Your task to perform on an android device: add a label to a message in the gmail app Image 0: 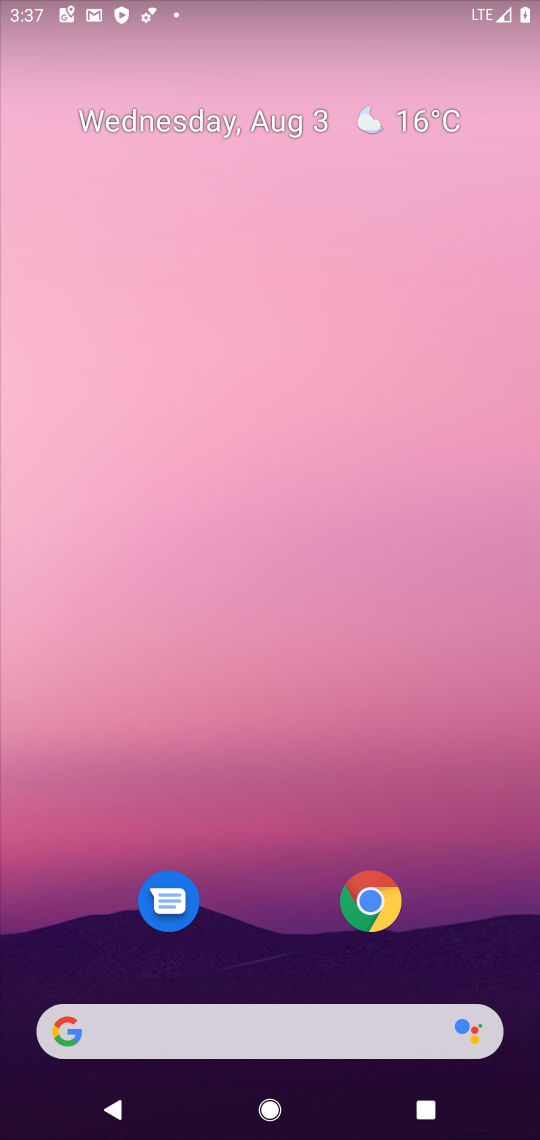
Step 0: drag from (282, 350) to (282, 281)
Your task to perform on an android device: add a label to a message in the gmail app Image 1: 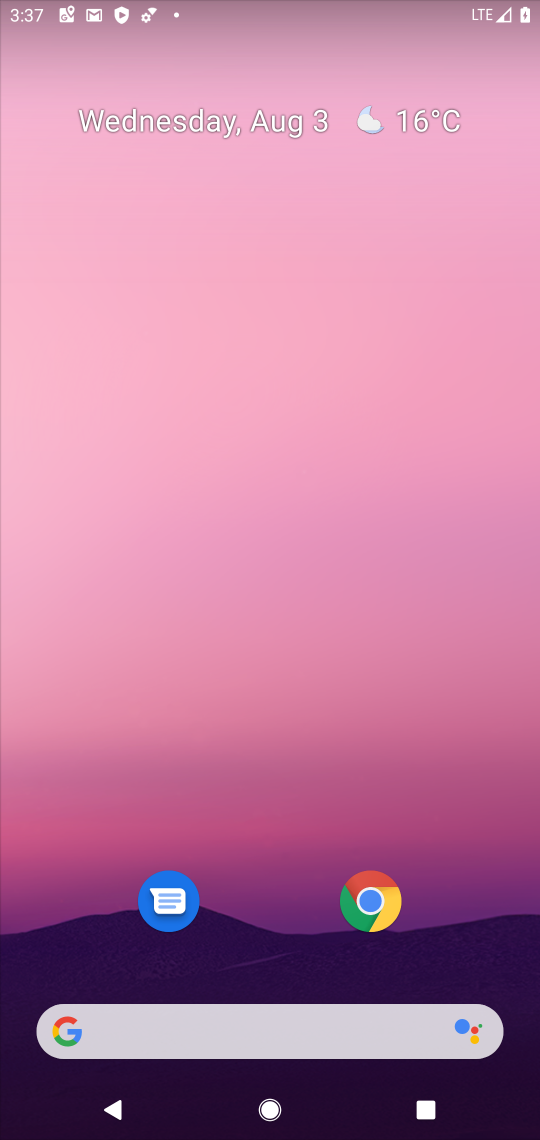
Step 1: drag from (233, 963) to (247, 28)
Your task to perform on an android device: add a label to a message in the gmail app Image 2: 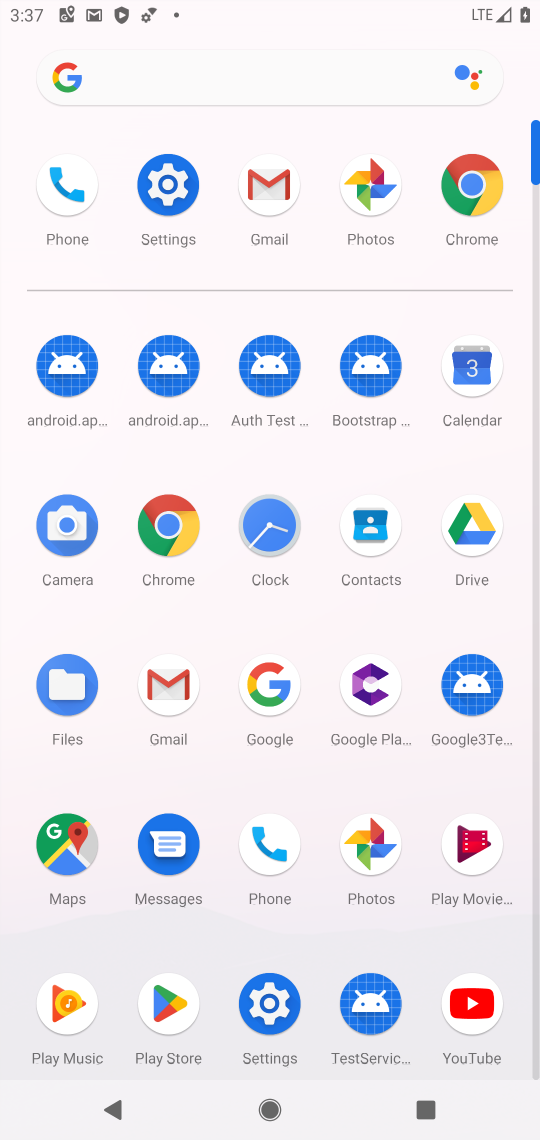
Step 2: click (177, 697)
Your task to perform on an android device: add a label to a message in the gmail app Image 3: 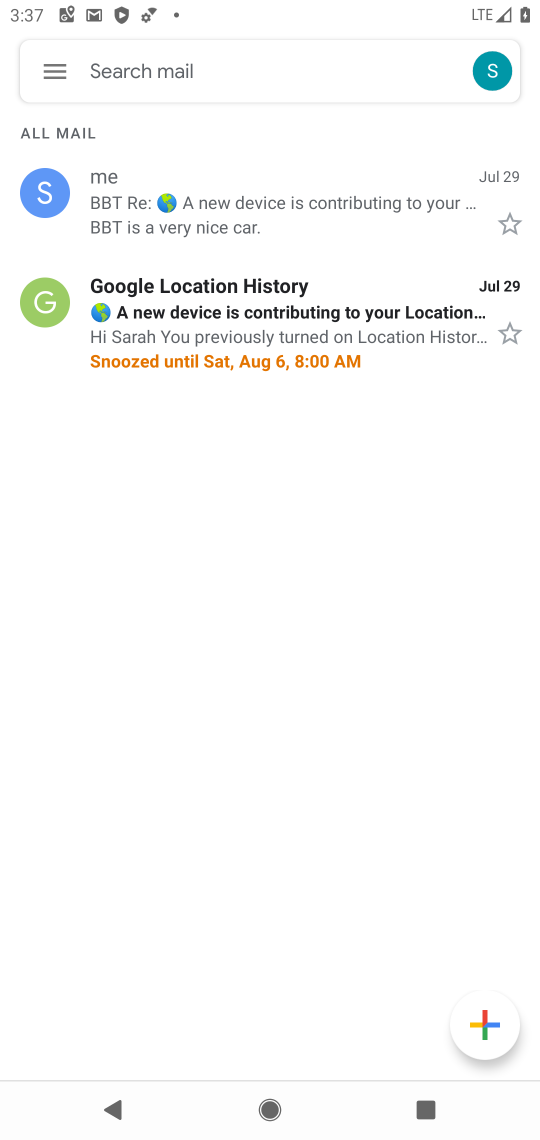
Step 3: click (130, 309)
Your task to perform on an android device: add a label to a message in the gmail app Image 4: 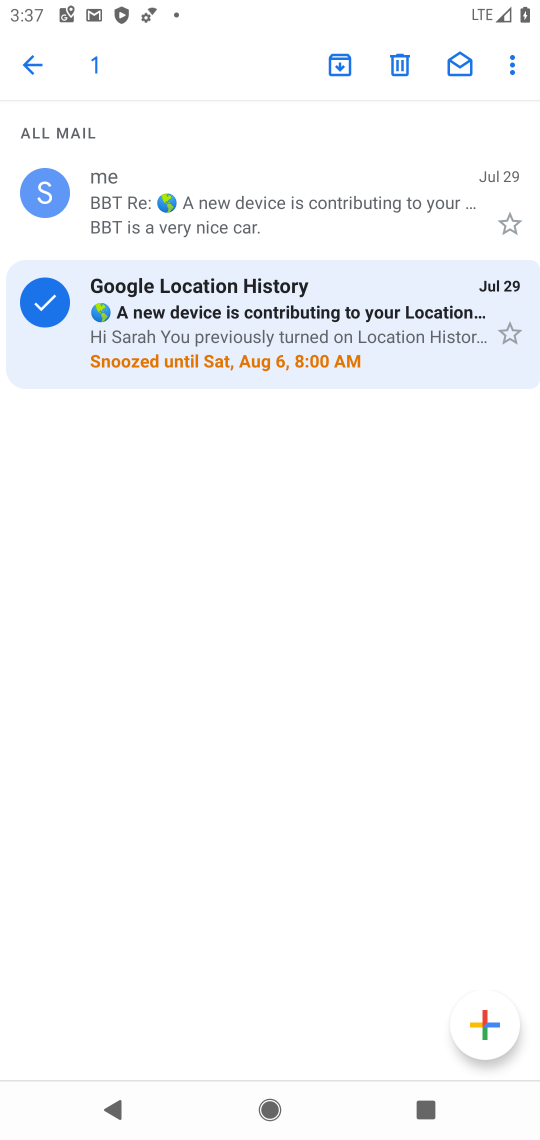
Step 4: click (514, 65)
Your task to perform on an android device: add a label to a message in the gmail app Image 5: 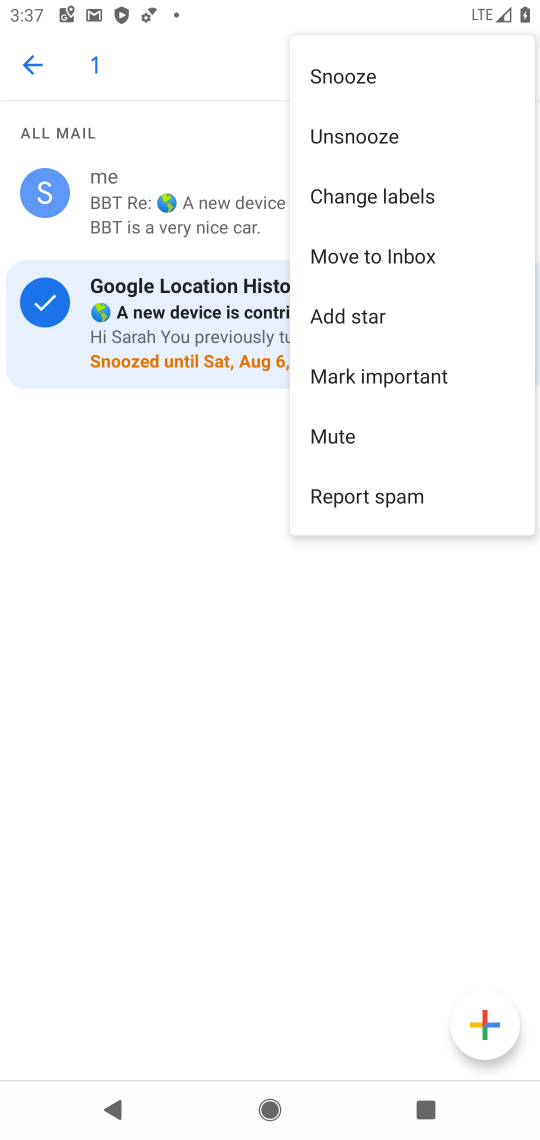
Step 5: click (382, 190)
Your task to perform on an android device: add a label to a message in the gmail app Image 6: 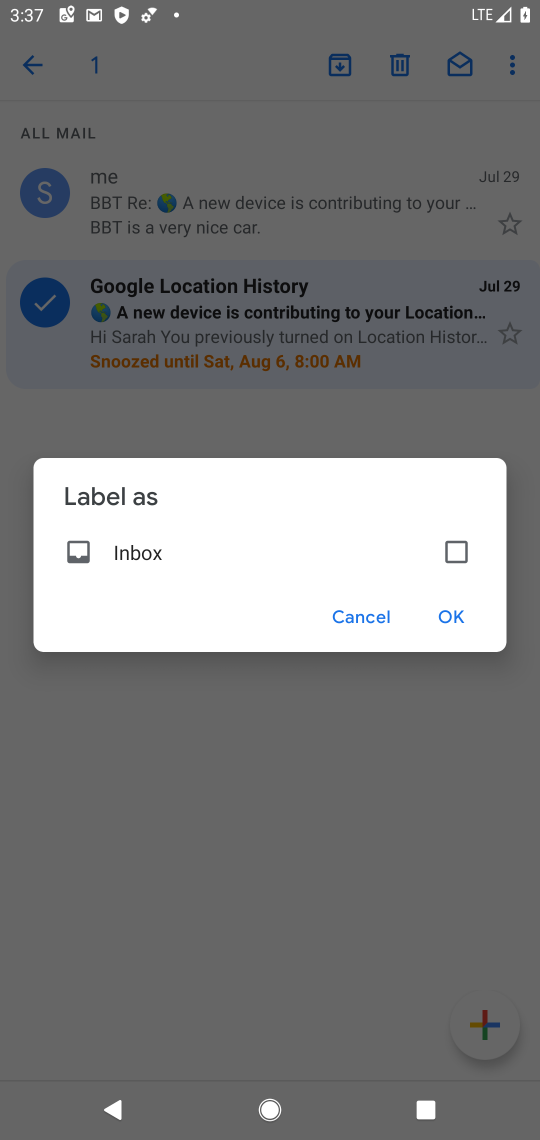
Step 6: click (446, 602)
Your task to perform on an android device: add a label to a message in the gmail app Image 7: 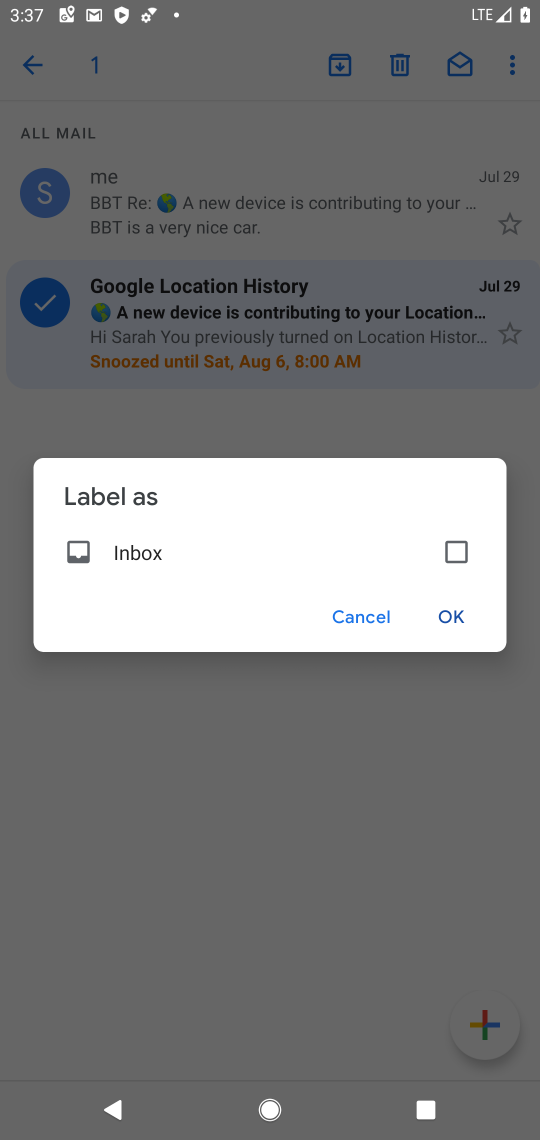
Step 7: click (449, 529)
Your task to perform on an android device: add a label to a message in the gmail app Image 8: 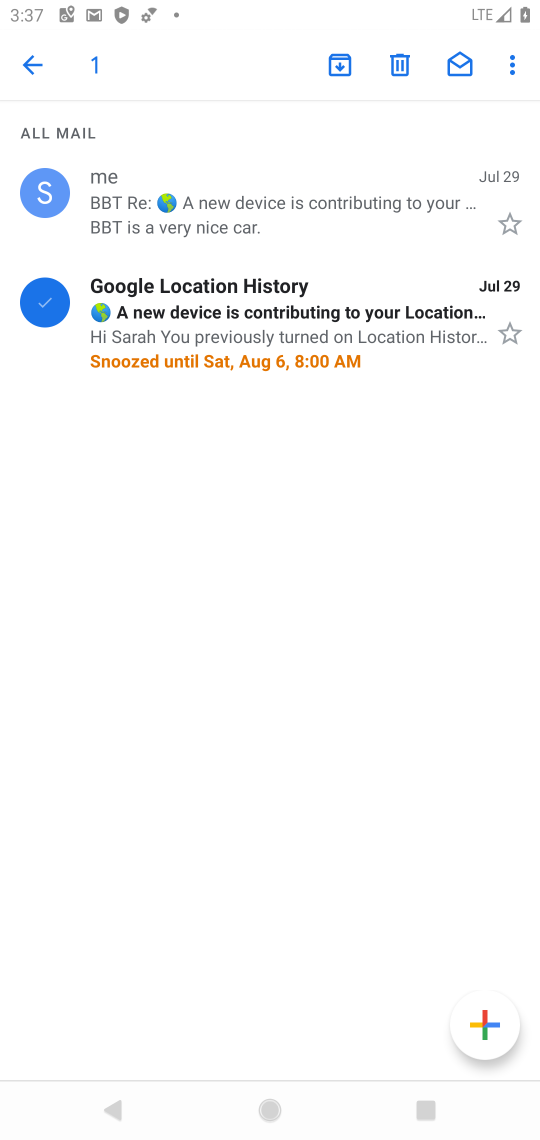
Step 8: click (460, 554)
Your task to perform on an android device: add a label to a message in the gmail app Image 9: 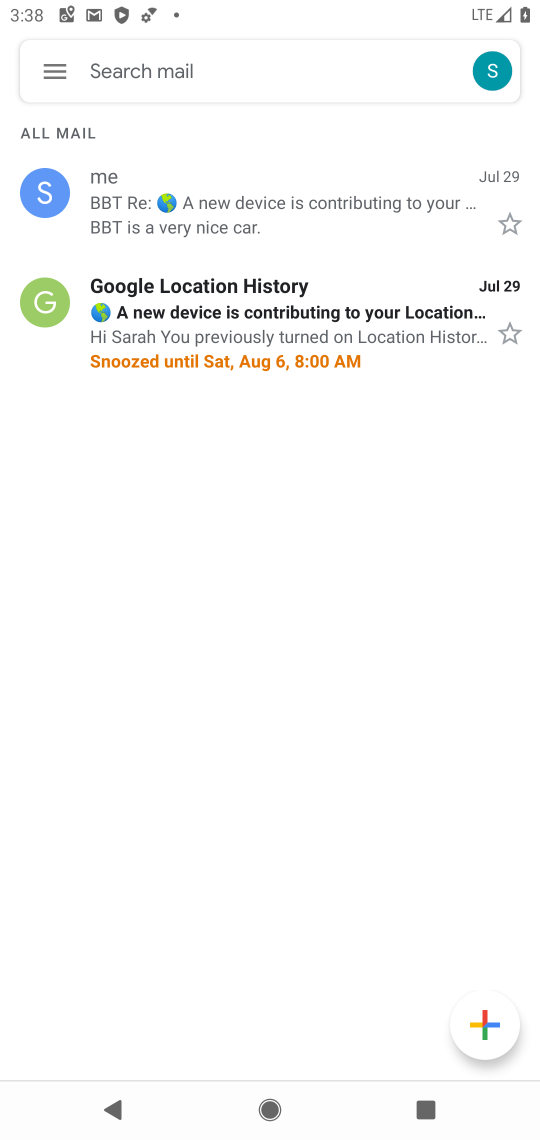
Step 9: task complete